Your task to perform on an android device: Open eBay Image 0: 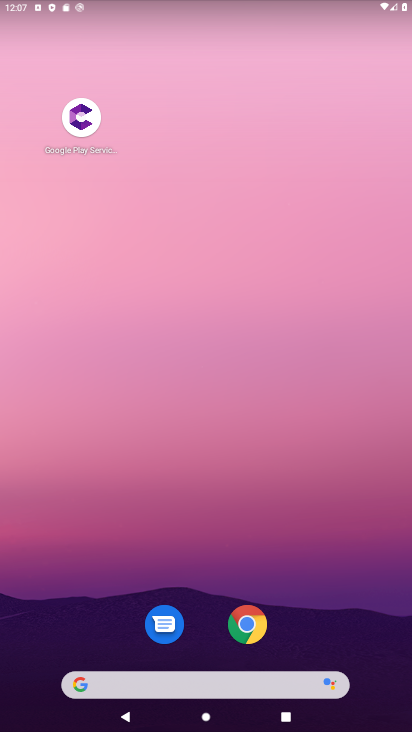
Step 0: click (252, 627)
Your task to perform on an android device: Open eBay Image 1: 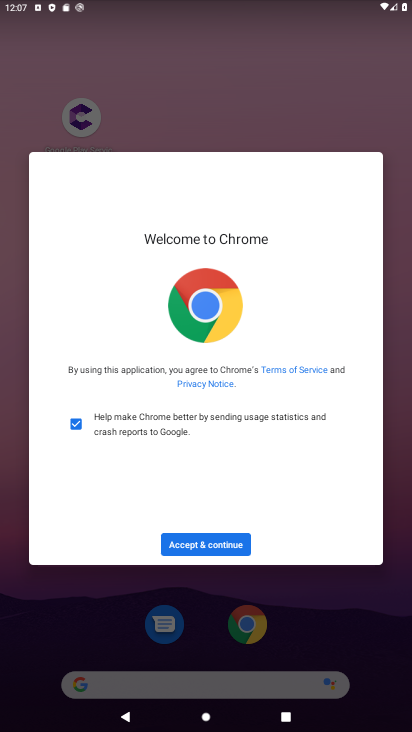
Step 1: click (197, 546)
Your task to perform on an android device: Open eBay Image 2: 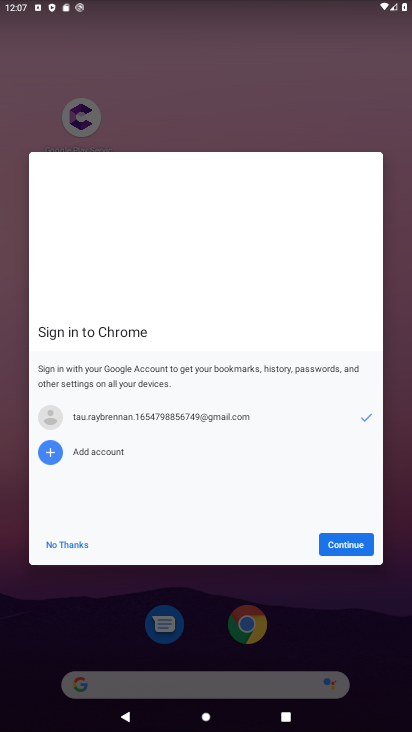
Step 2: click (342, 557)
Your task to perform on an android device: Open eBay Image 3: 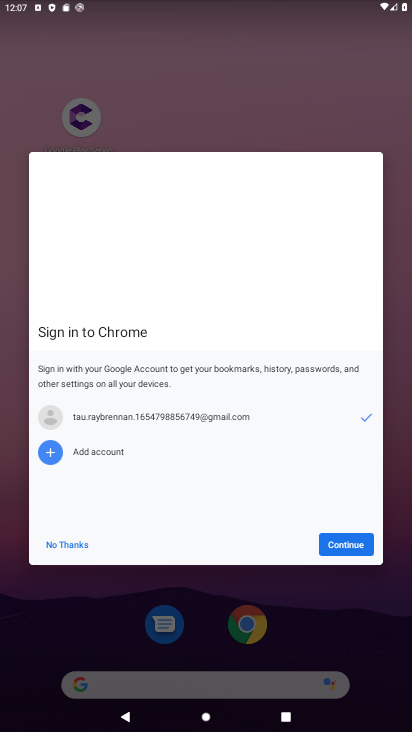
Step 3: click (347, 549)
Your task to perform on an android device: Open eBay Image 4: 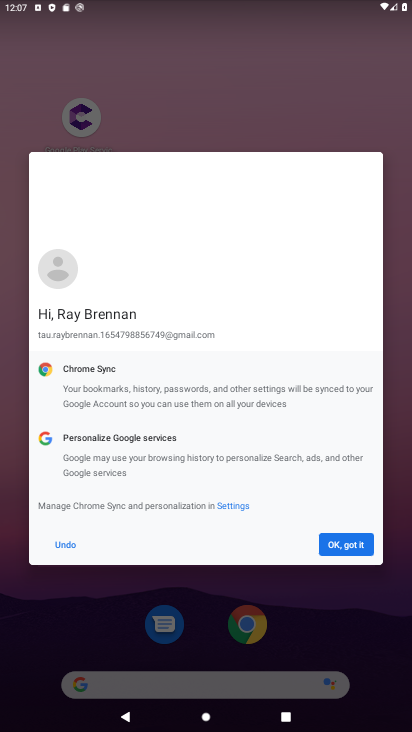
Step 4: click (347, 549)
Your task to perform on an android device: Open eBay Image 5: 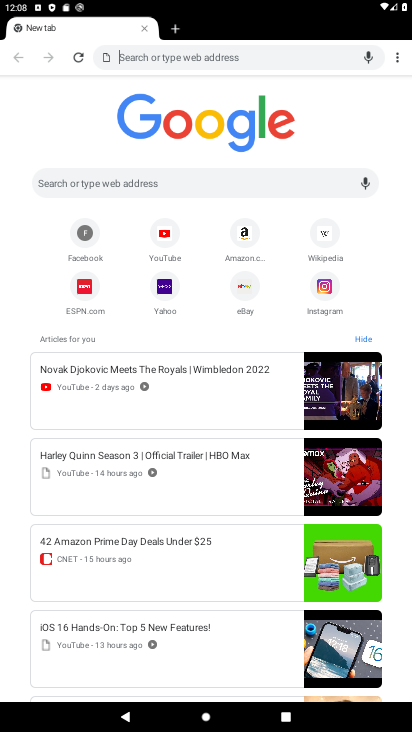
Step 5: click (235, 289)
Your task to perform on an android device: Open eBay Image 6: 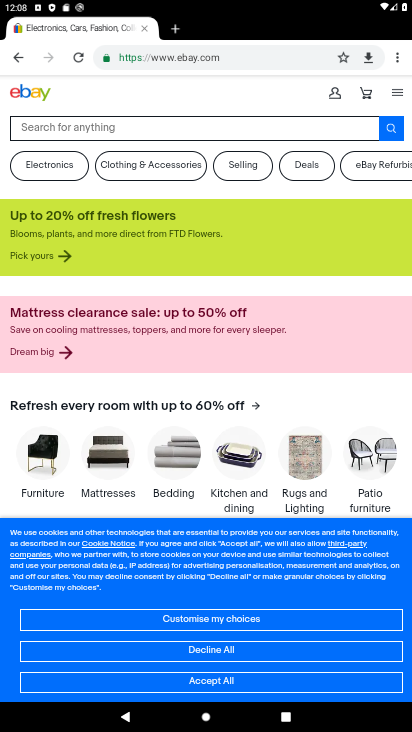
Step 6: task complete